Your task to perform on an android device: Open Amazon Image 0: 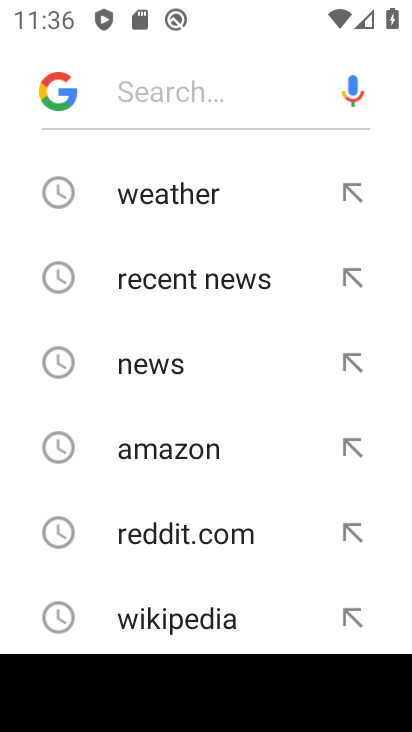
Step 0: press home button
Your task to perform on an android device: Open Amazon Image 1: 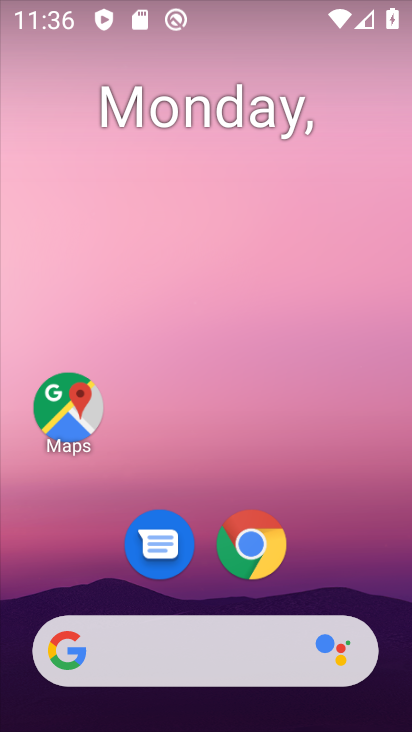
Step 1: click (261, 547)
Your task to perform on an android device: Open Amazon Image 2: 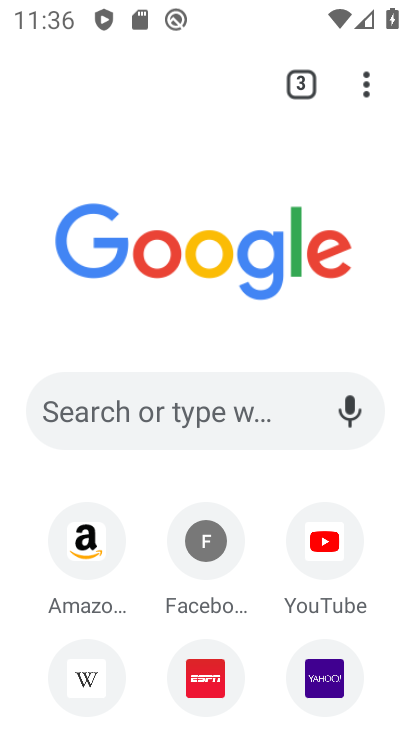
Step 2: click (299, 99)
Your task to perform on an android device: Open Amazon Image 3: 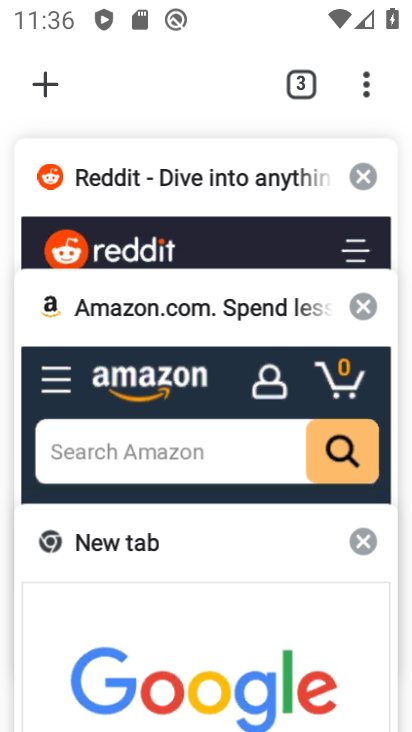
Step 3: click (202, 352)
Your task to perform on an android device: Open Amazon Image 4: 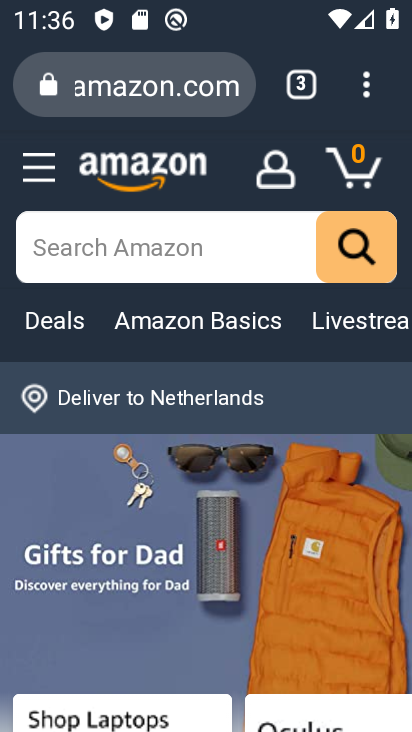
Step 4: task complete